Your task to perform on an android device: turn on sleep mode Image 0: 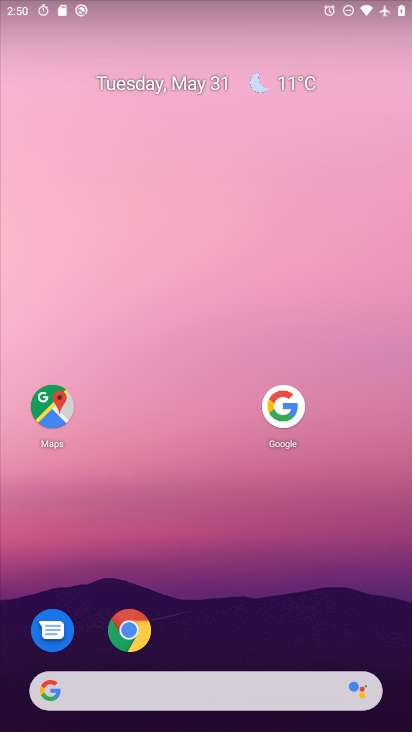
Step 0: drag from (217, 680) to (408, 14)
Your task to perform on an android device: turn on sleep mode Image 1: 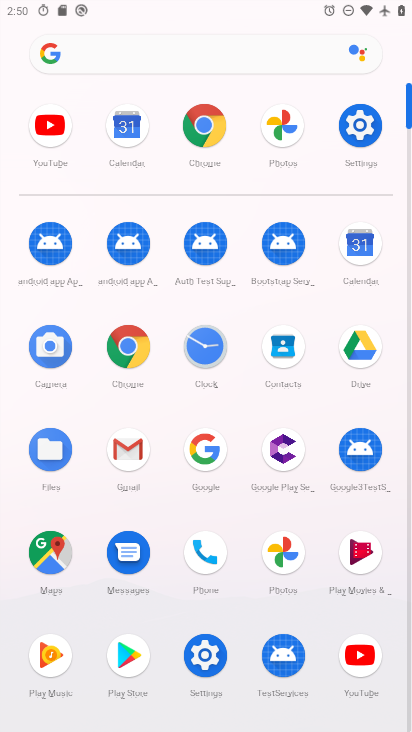
Step 1: click (358, 128)
Your task to perform on an android device: turn on sleep mode Image 2: 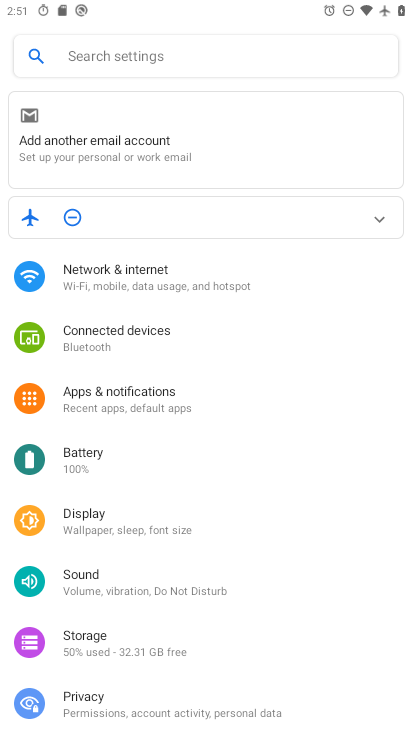
Step 2: click (147, 524)
Your task to perform on an android device: turn on sleep mode Image 3: 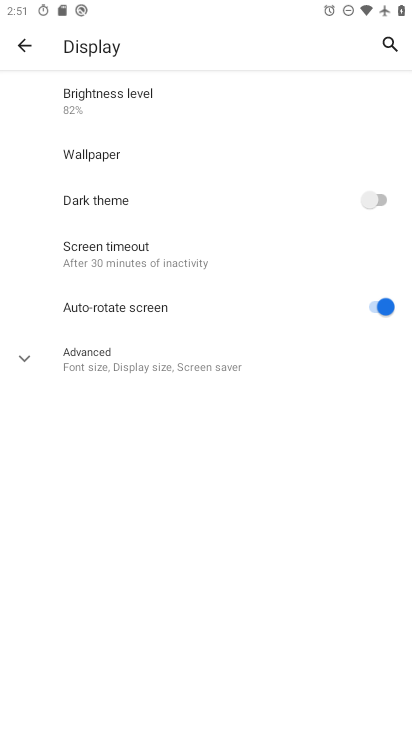
Step 3: task complete